Your task to perform on an android device: Open notification settings Image 0: 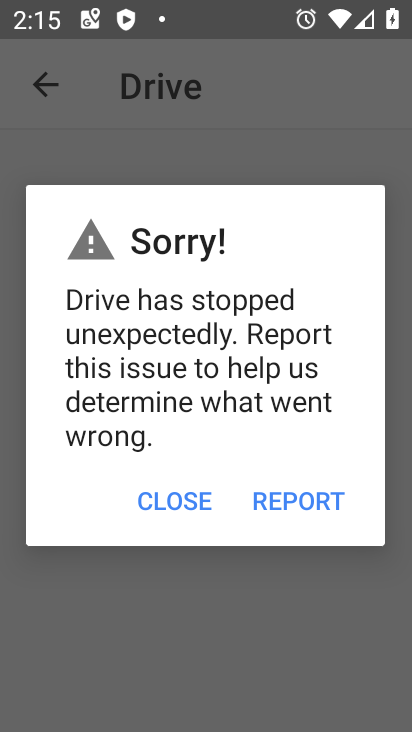
Step 0: press home button
Your task to perform on an android device: Open notification settings Image 1: 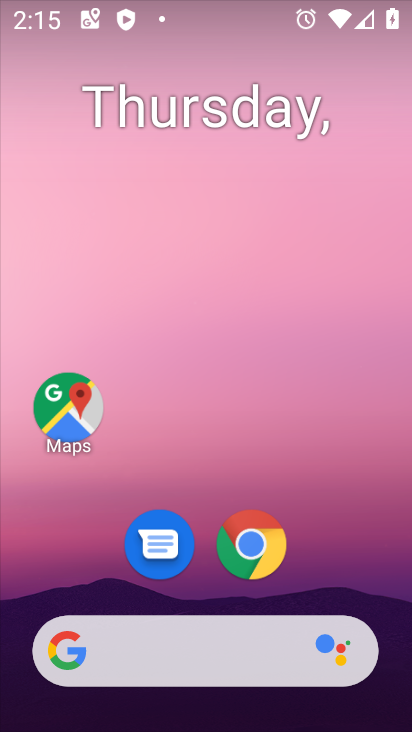
Step 1: drag from (360, 596) to (317, 221)
Your task to perform on an android device: Open notification settings Image 2: 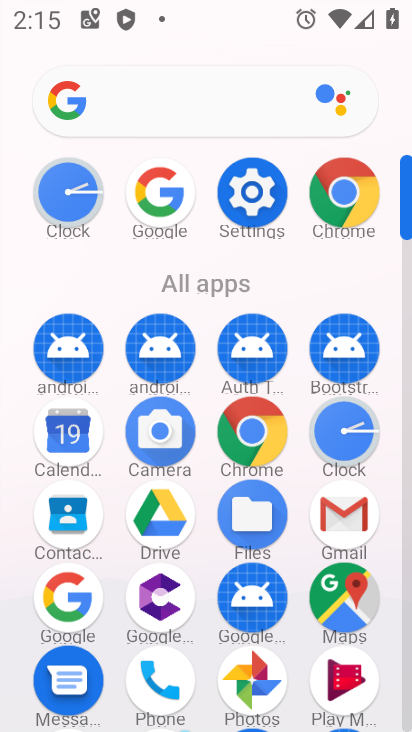
Step 2: click (258, 227)
Your task to perform on an android device: Open notification settings Image 3: 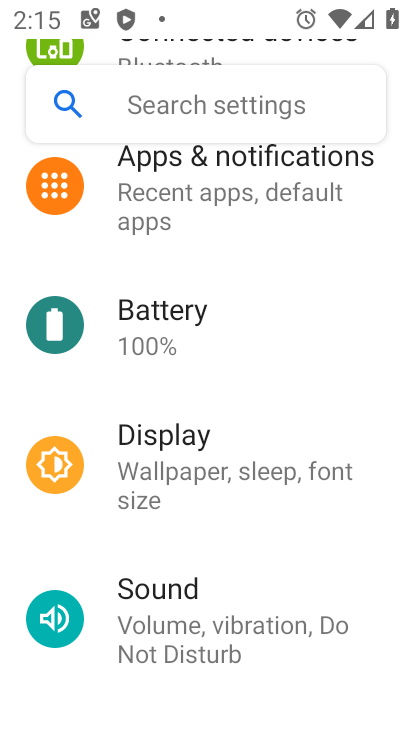
Step 3: click (281, 200)
Your task to perform on an android device: Open notification settings Image 4: 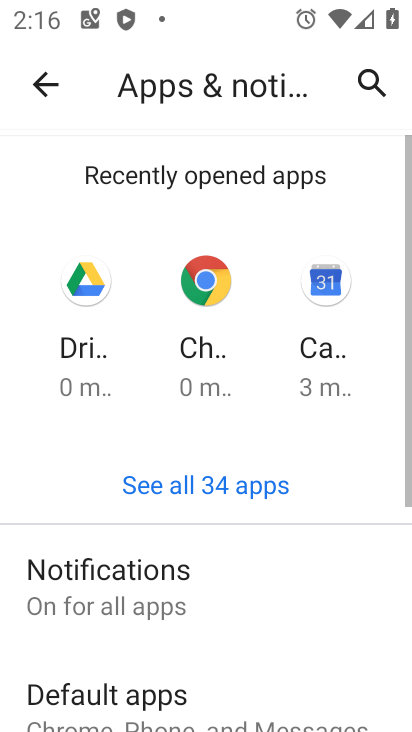
Step 4: task complete